Your task to perform on an android device: Is it going to rain today? Image 0: 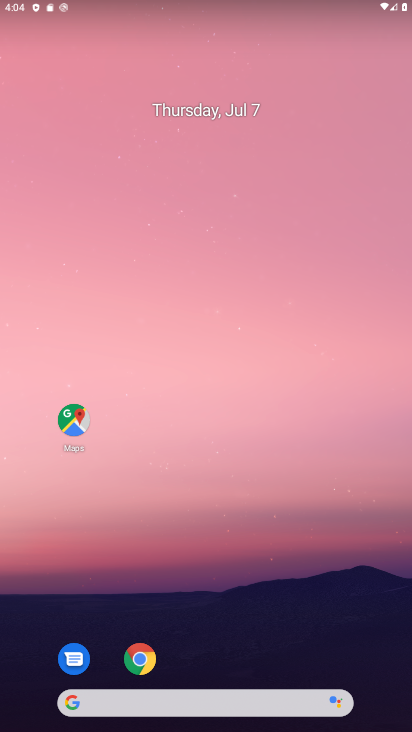
Step 0: click (248, 703)
Your task to perform on an android device: Is it going to rain today? Image 1: 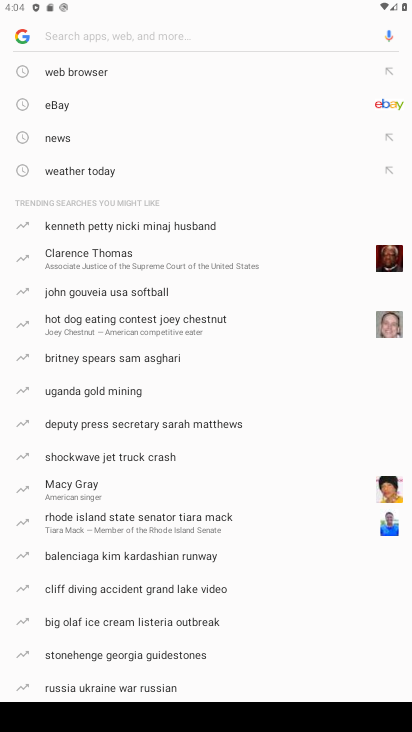
Step 1: click (122, 181)
Your task to perform on an android device: Is it going to rain today? Image 2: 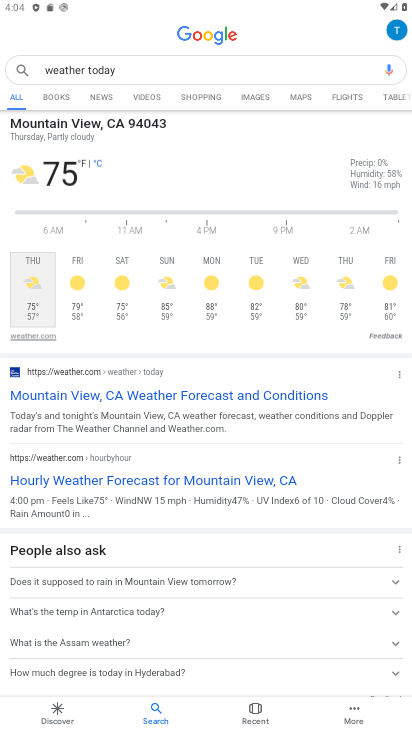
Step 2: task complete